Your task to perform on an android device: uninstall "Google Sheets" Image 0: 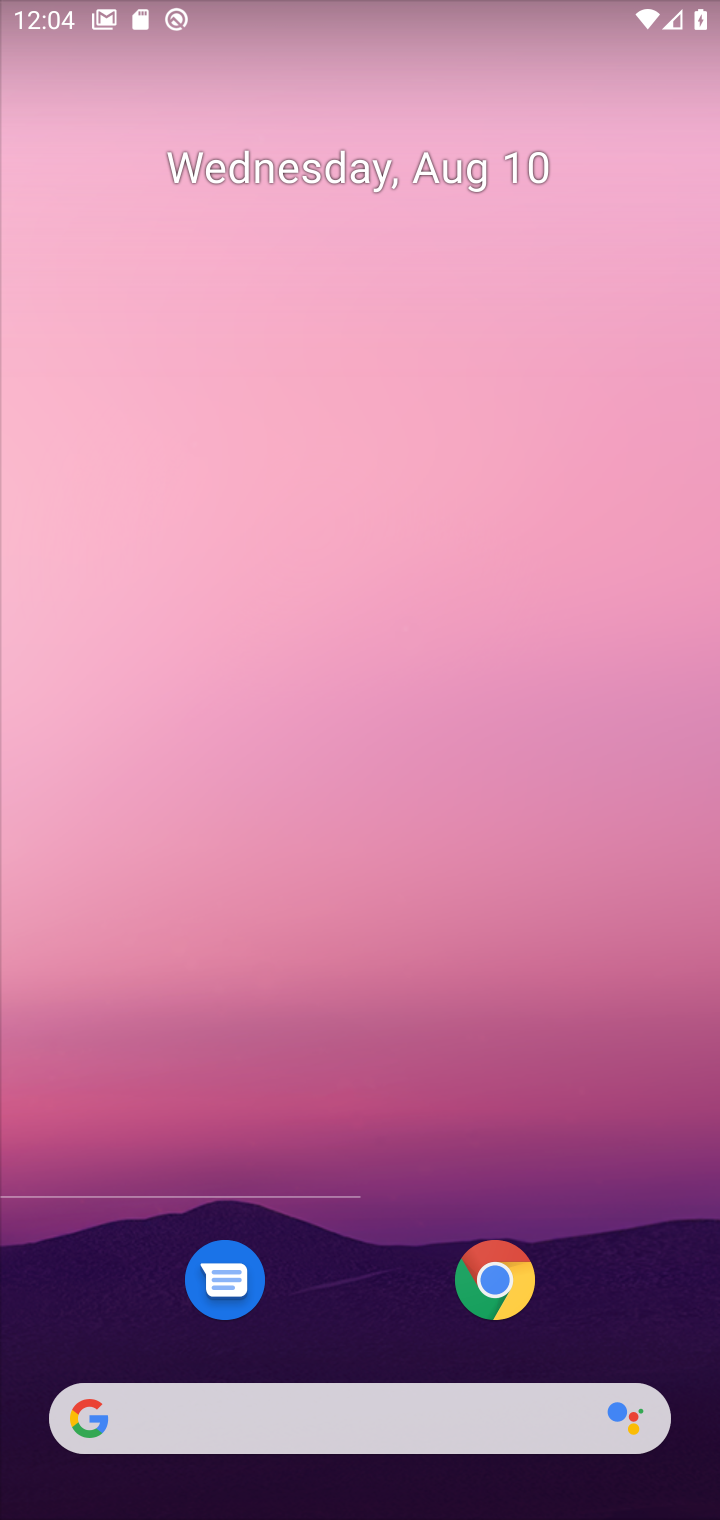
Step 0: press home button
Your task to perform on an android device: uninstall "Google Sheets" Image 1: 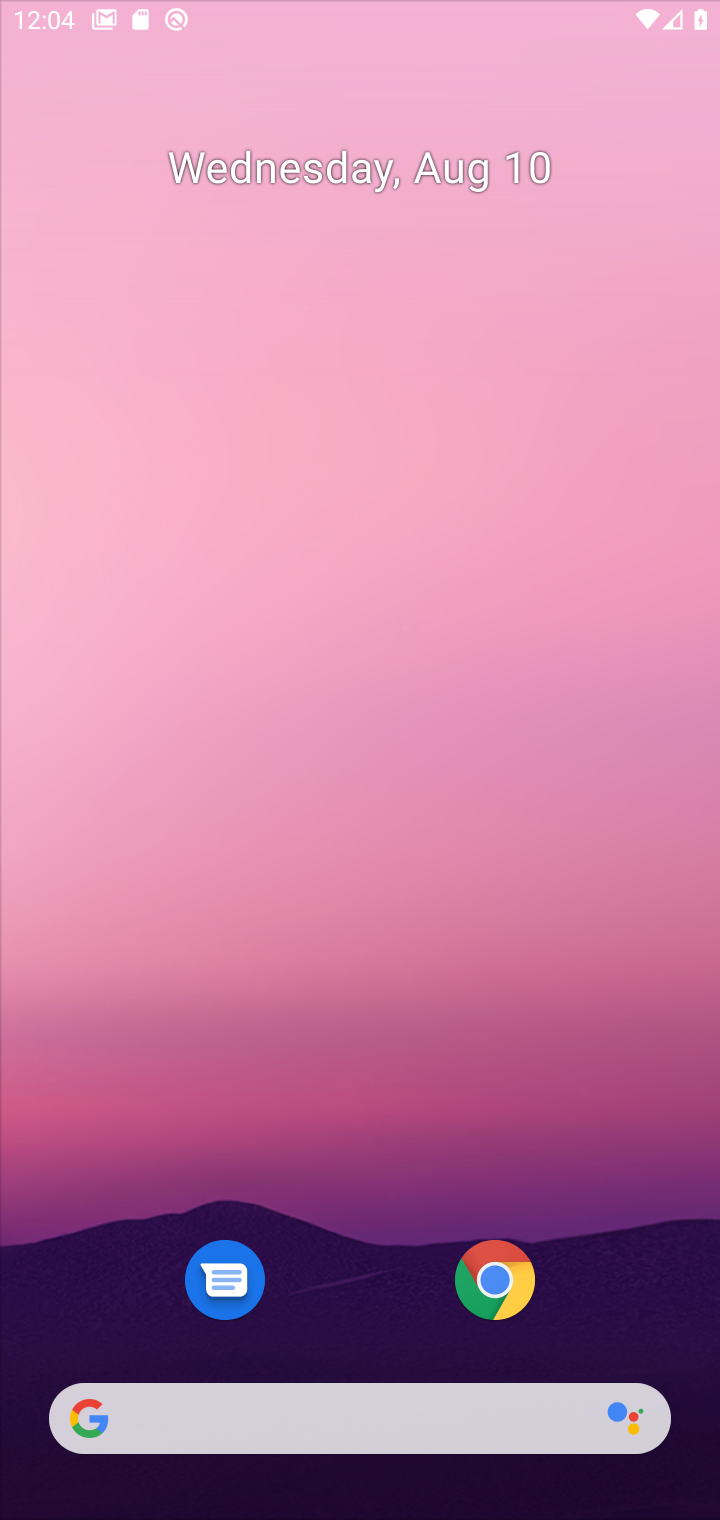
Step 1: press home button
Your task to perform on an android device: uninstall "Google Sheets" Image 2: 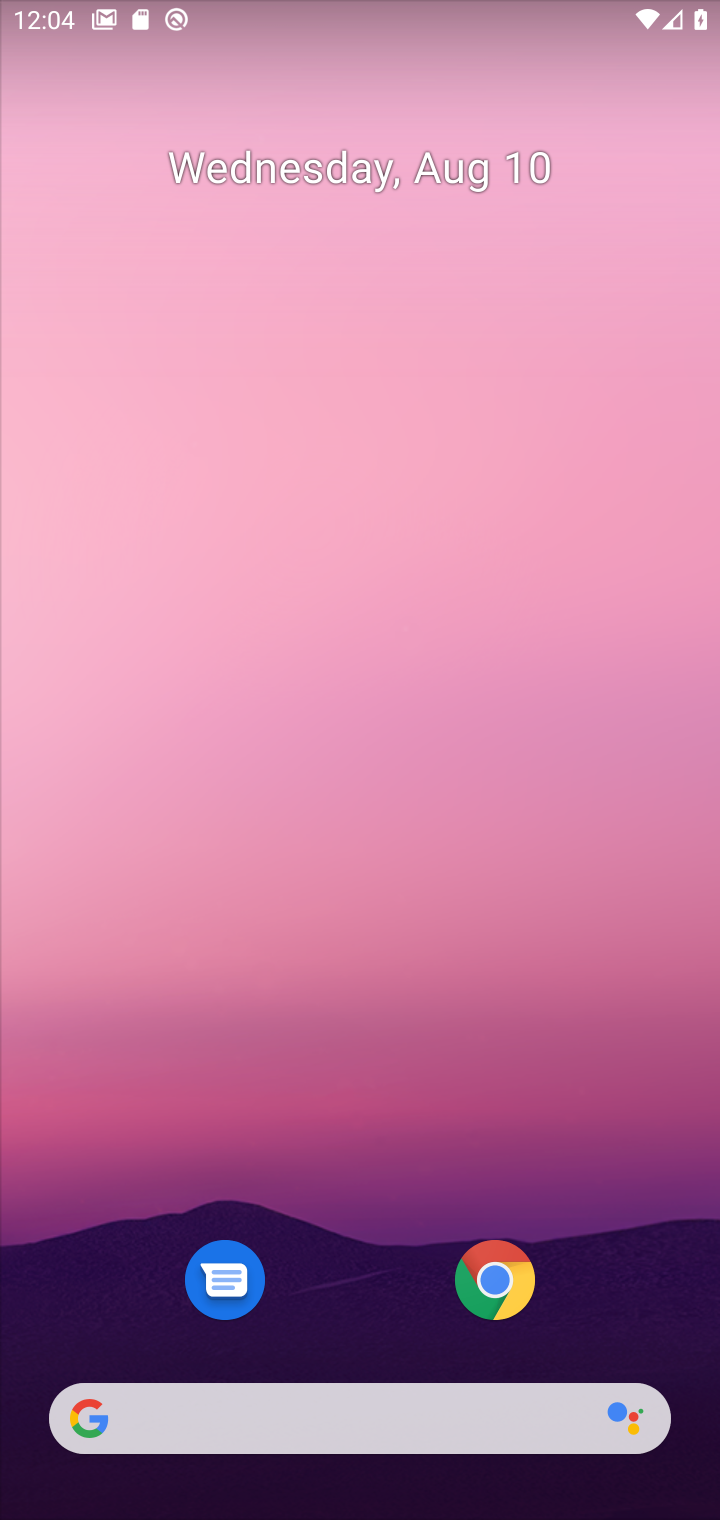
Step 2: drag from (384, 1297) to (551, 34)
Your task to perform on an android device: uninstall "Google Sheets" Image 3: 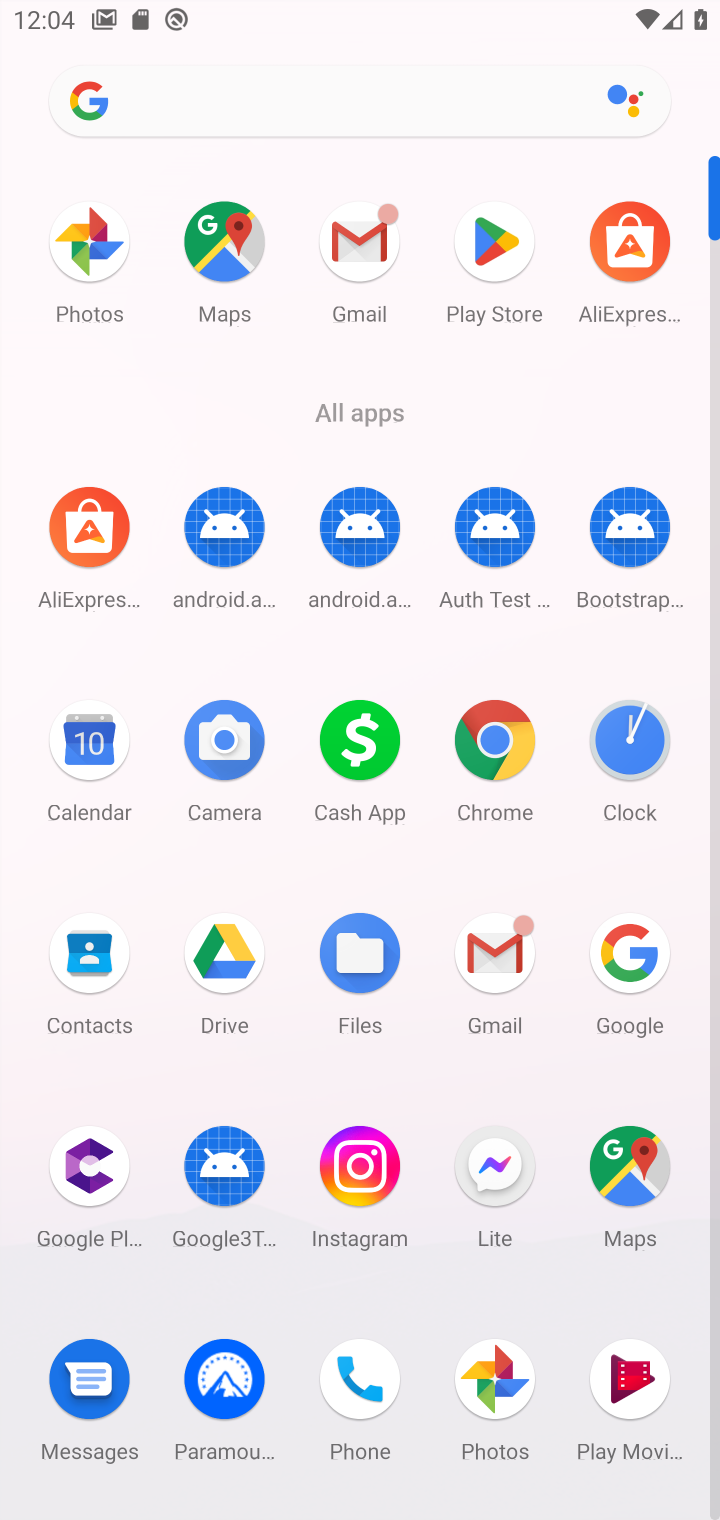
Step 3: click (524, 249)
Your task to perform on an android device: uninstall "Google Sheets" Image 4: 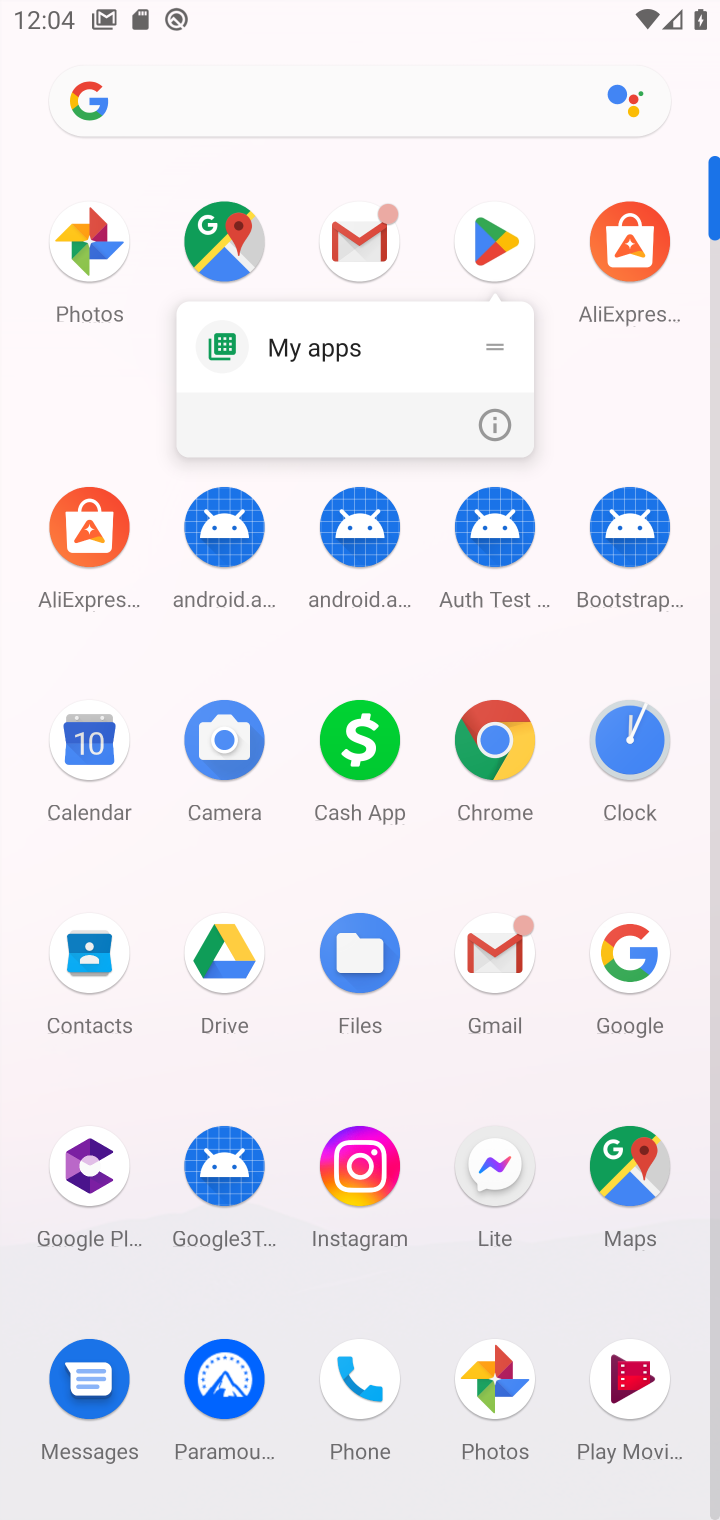
Step 4: click (501, 241)
Your task to perform on an android device: uninstall "Google Sheets" Image 5: 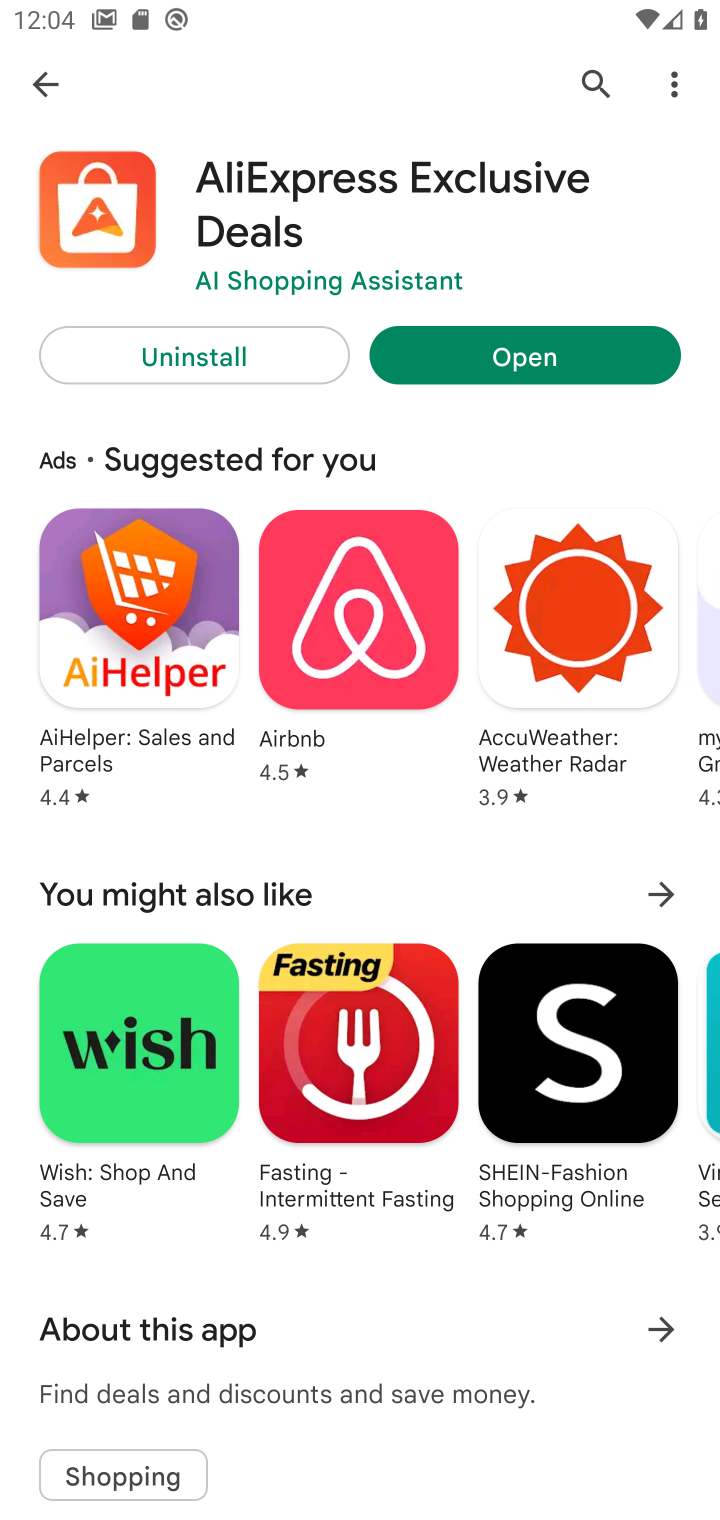
Step 5: click (585, 71)
Your task to perform on an android device: uninstall "Google Sheets" Image 6: 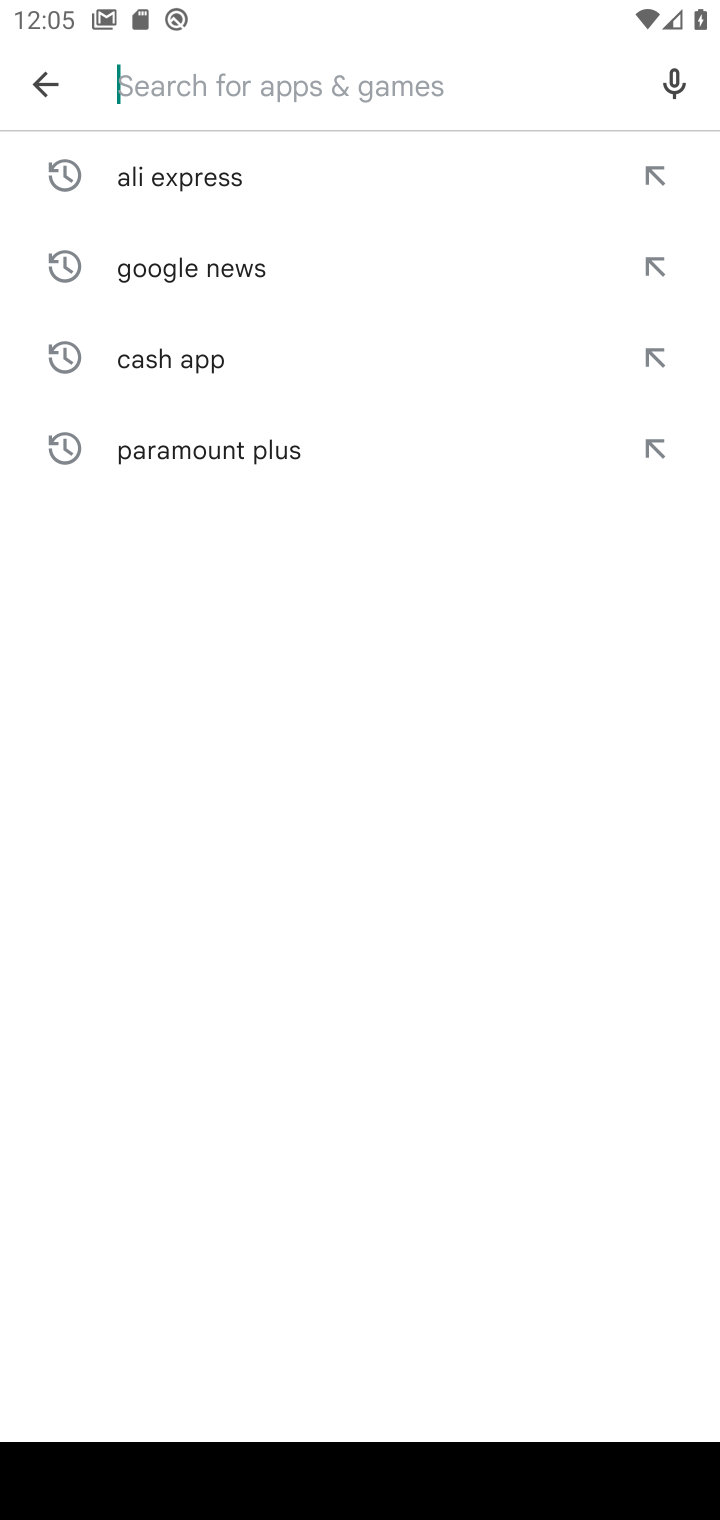
Step 6: click (242, 96)
Your task to perform on an android device: uninstall "Google Sheets" Image 7: 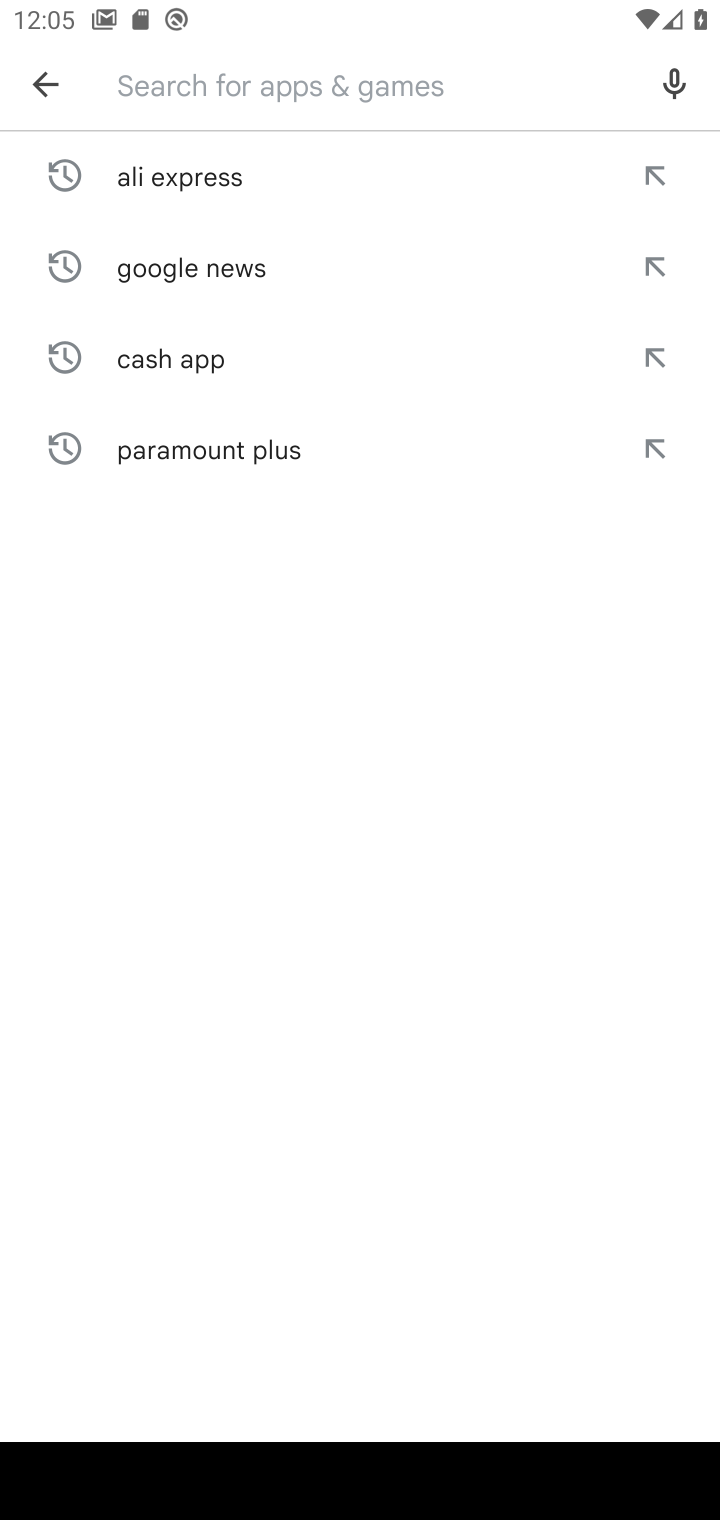
Step 7: type "Google Sheets"
Your task to perform on an android device: uninstall "Google Sheets" Image 8: 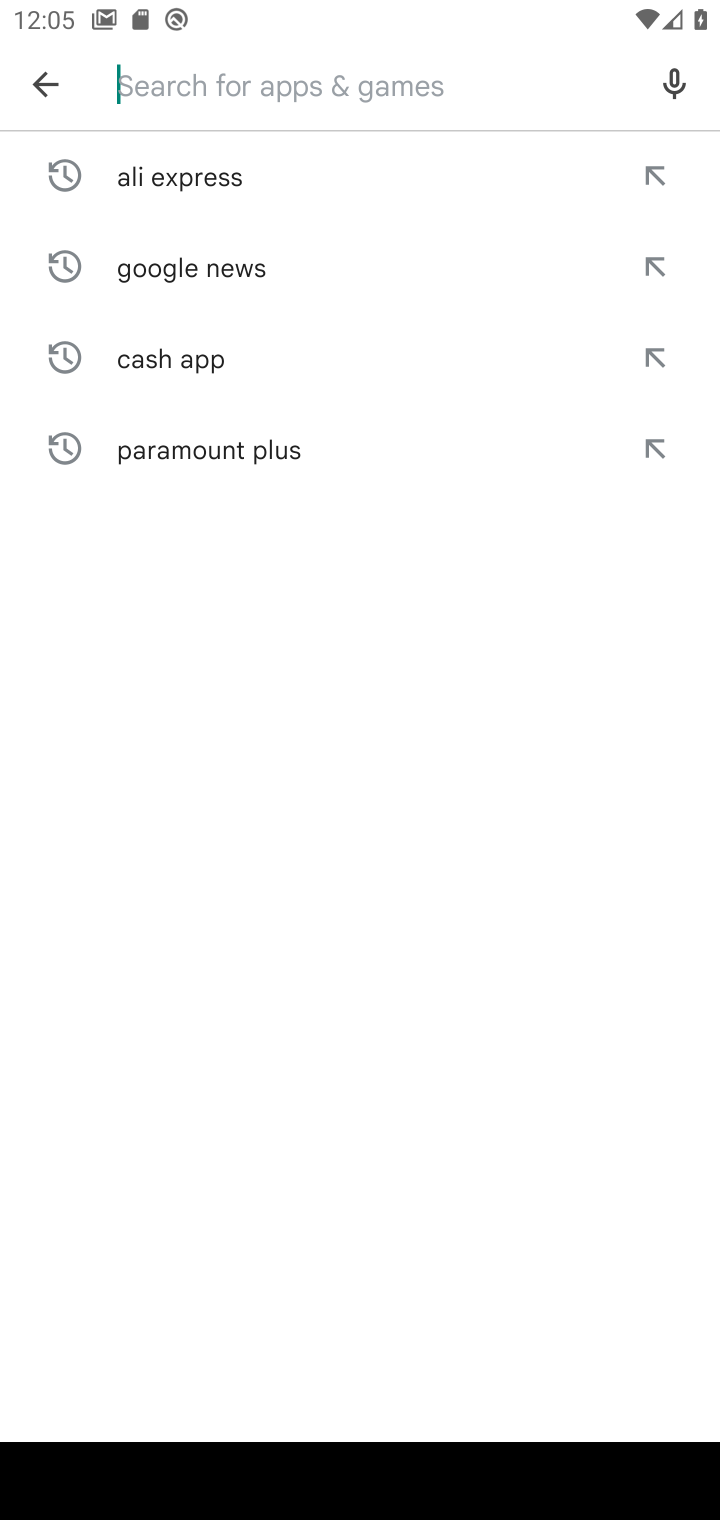
Step 8: click (504, 915)
Your task to perform on an android device: uninstall "Google Sheets" Image 9: 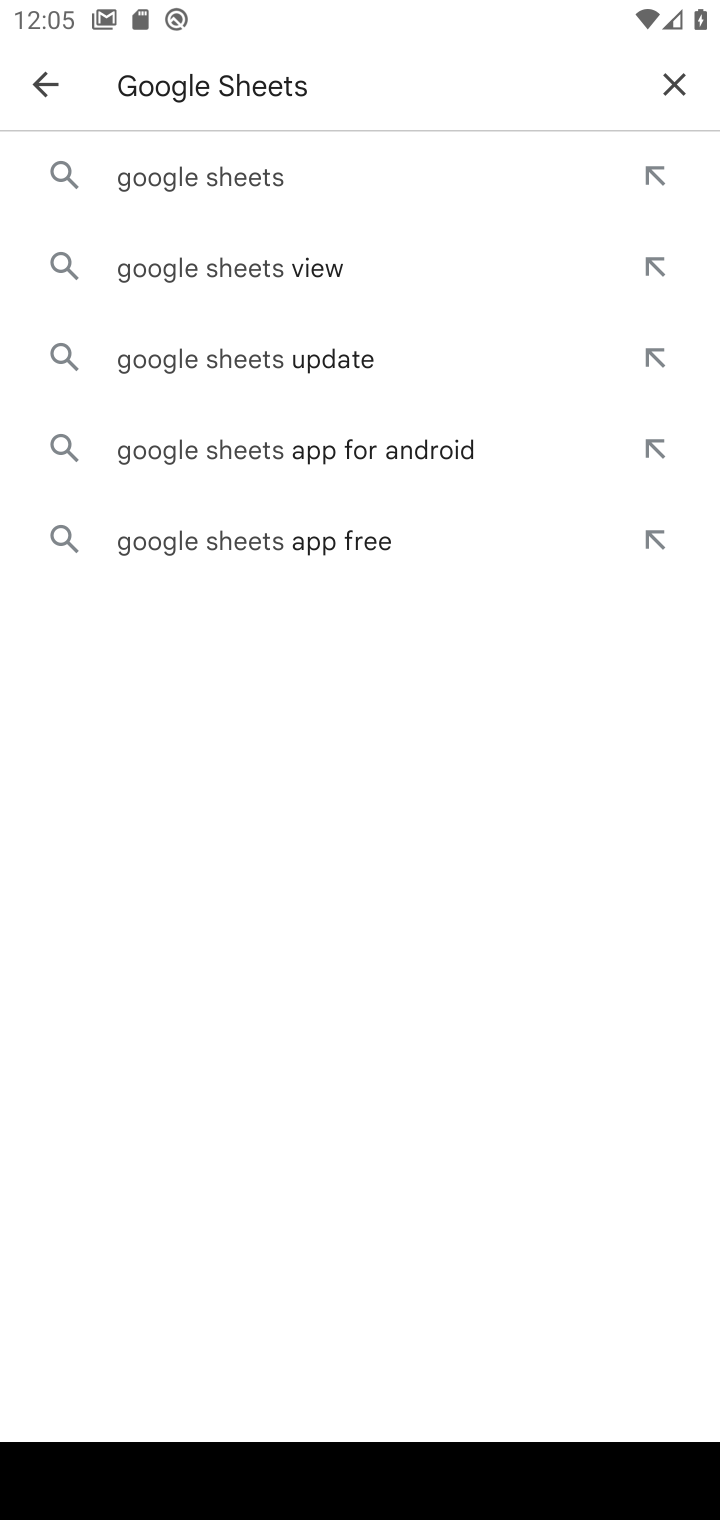
Step 9: click (212, 205)
Your task to perform on an android device: uninstall "Google Sheets" Image 10: 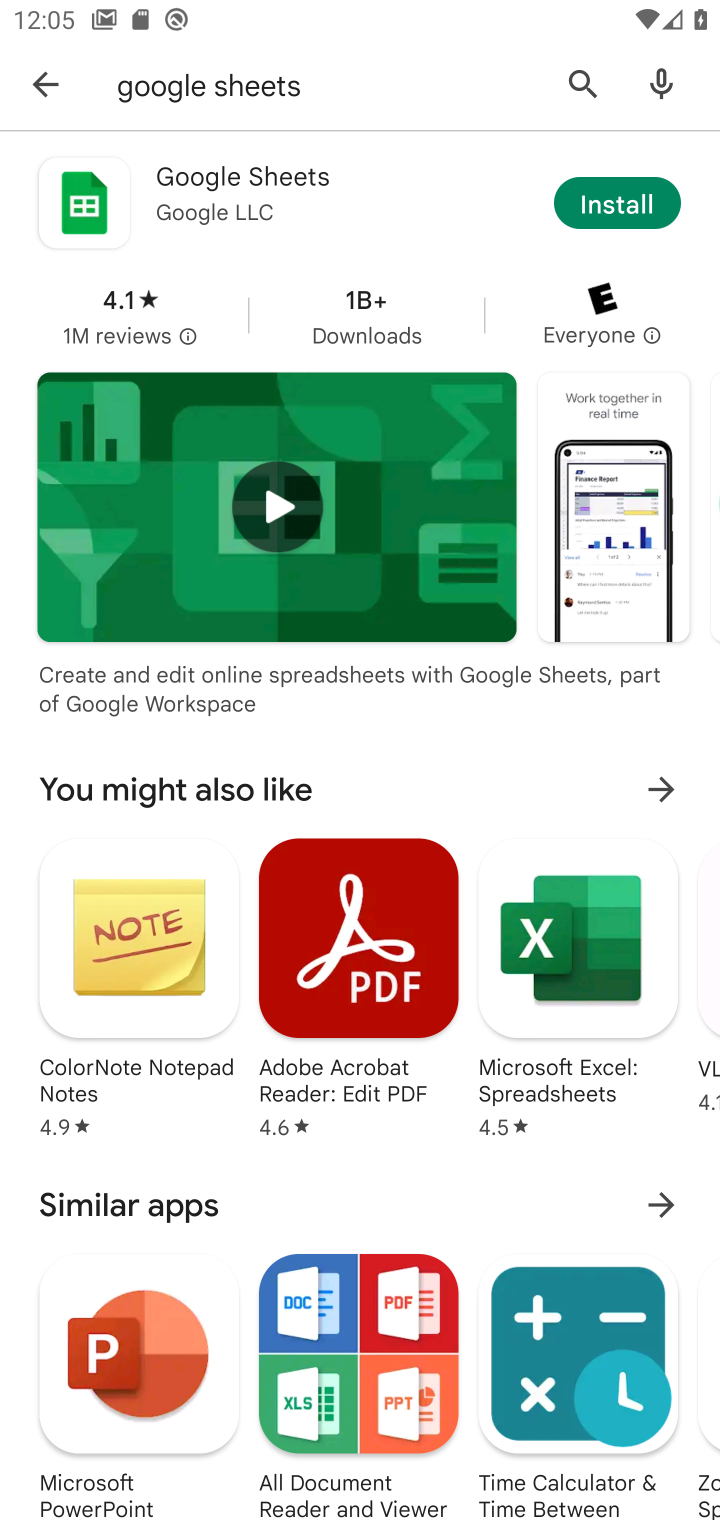
Step 10: task complete